Your task to perform on an android device: How do I get to the nearest Apple Store? Image 0: 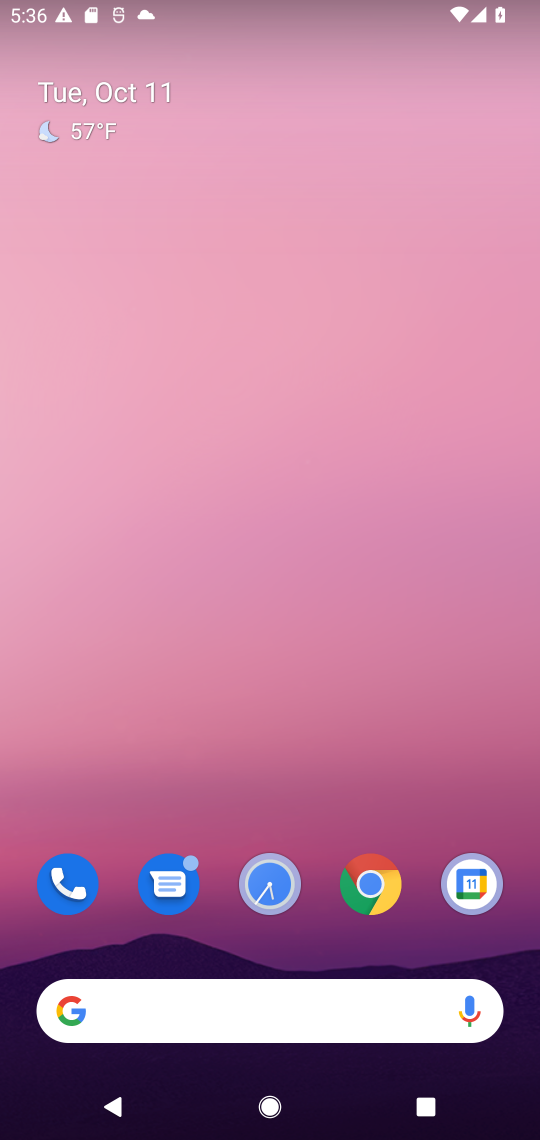
Step 0: drag from (311, 965) to (250, 85)
Your task to perform on an android device: How do I get to the nearest Apple Store? Image 1: 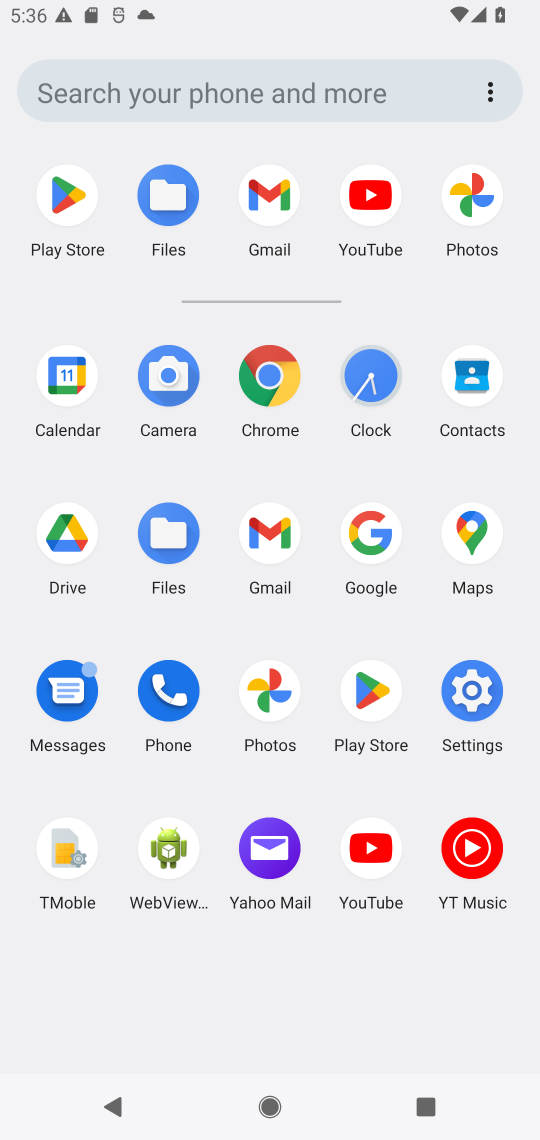
Step 1: click (280, 390)
Your task to perform on an android device: How do I get to the nearest Apple Store? Image 2: 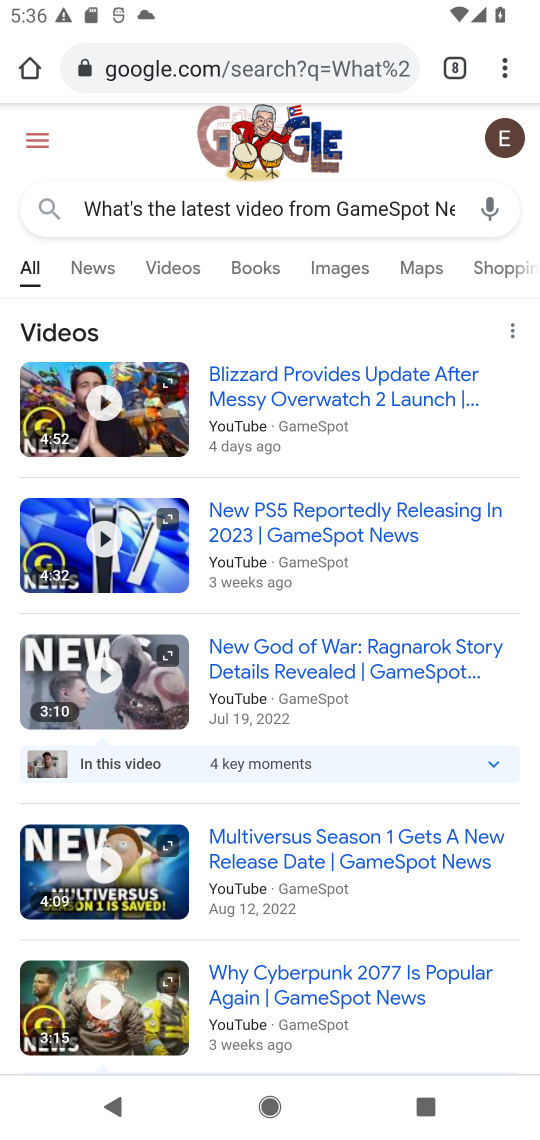
Step 2: click (256, 205)
Your task to perform on an android device: How do I get to the nearest Apple Store? Image 3: 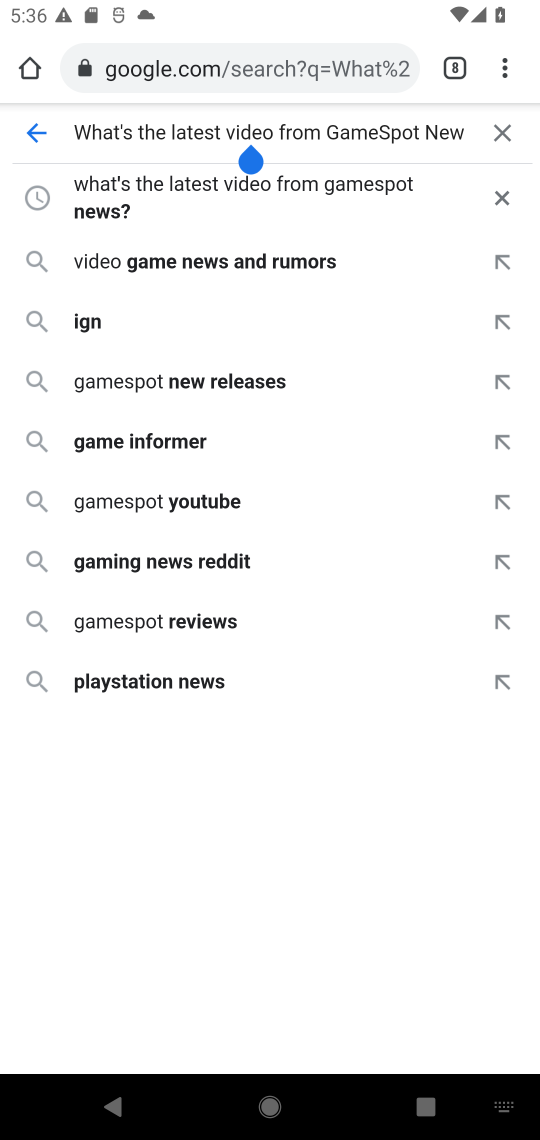
Step 3: click (507, 133)
Your task to perform on an android device: How do I get to the nearest Apple Store? Image 4: 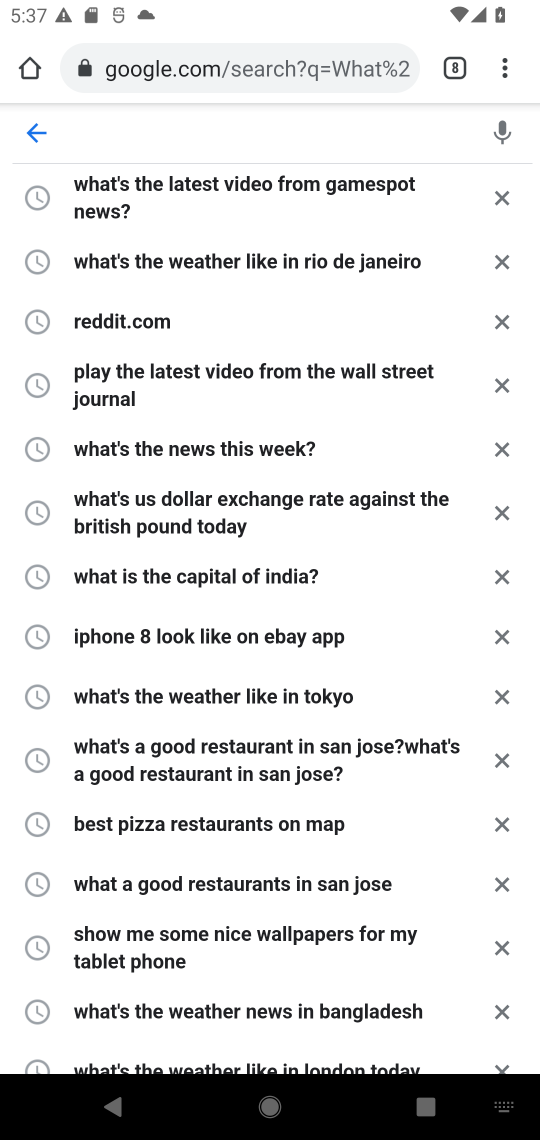
Step 4: type "How do I get to the nearest Apple Store?"
Your task to perform on an android device: How do I get to the nearest Apple Store? Image 5: 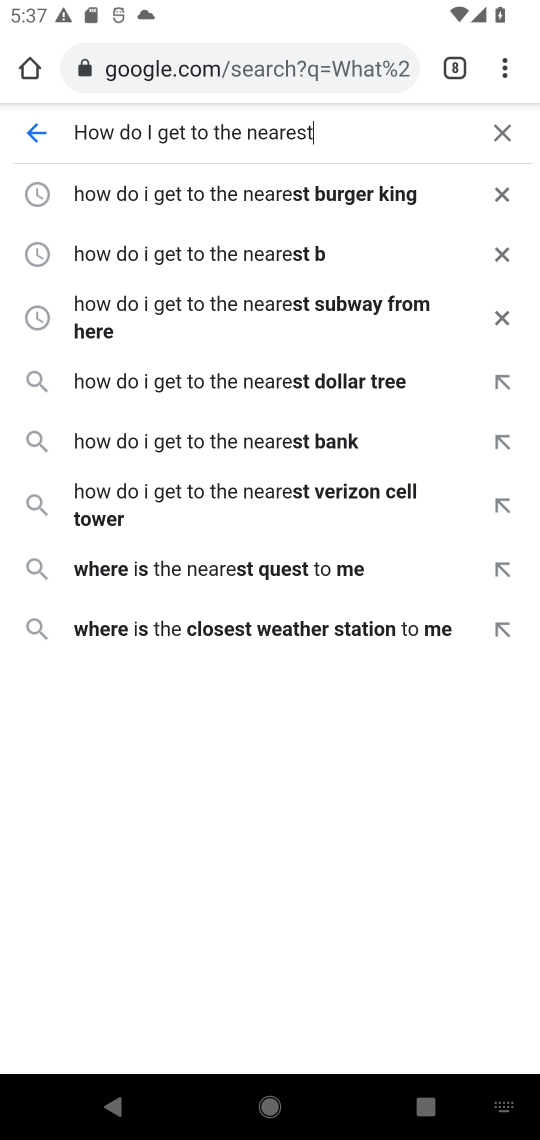
Step 5: type ""
Your task to perform on an android device: How do I get to the nearest Apple Store? Image 6: 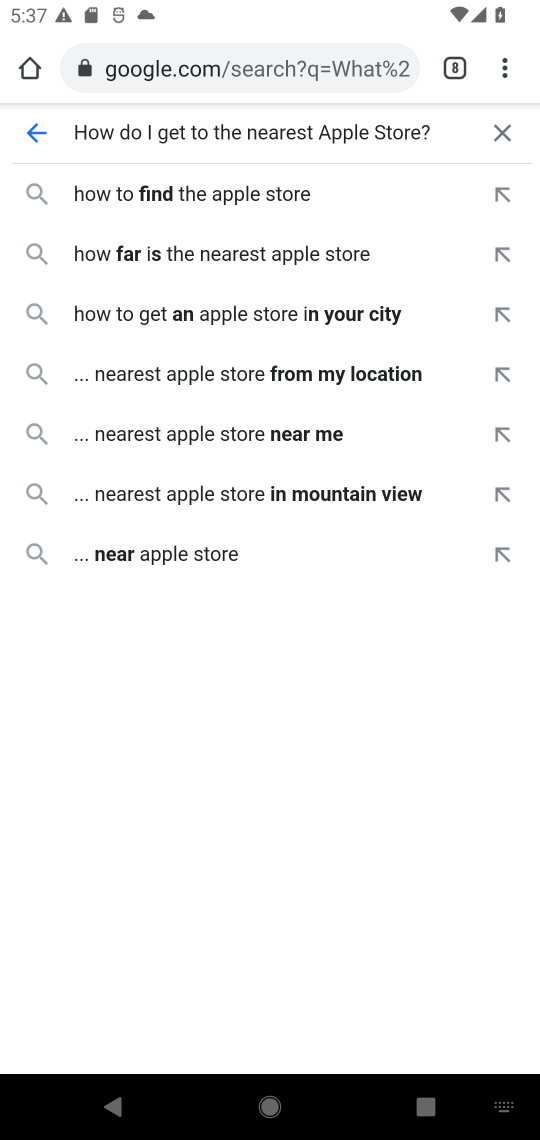
Step 6: click (275, 258)
Your task to perform on an android device: How do I get to the nearest Apple Store? Image 7: 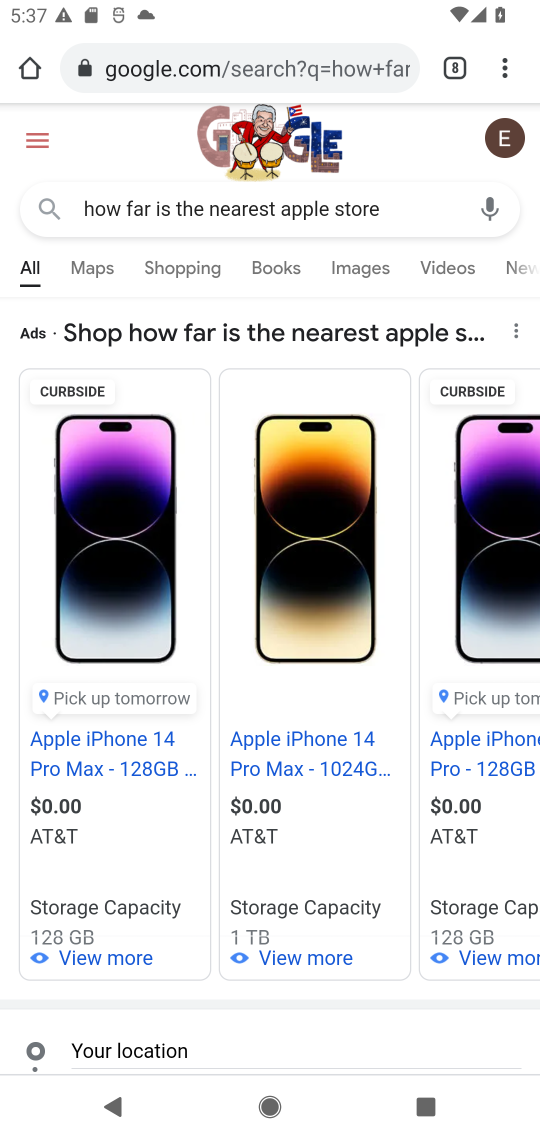
Step 7: task complete